Your task to perform on an android device: find which apps use the phone's location Image 0: 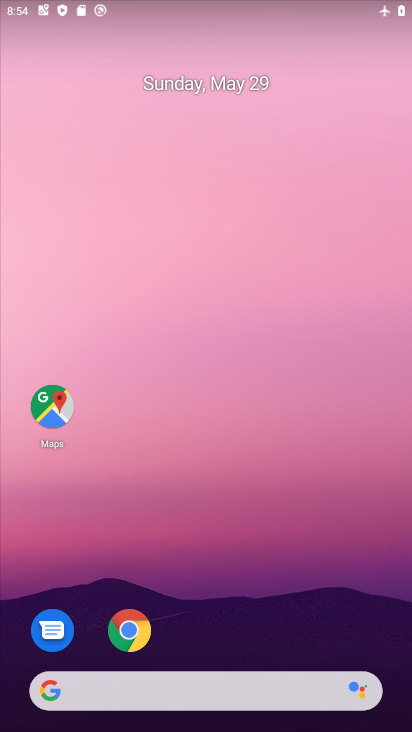
Step 0: drag from (198, 654) to (153, 94)
Your task to perform on an android device: find which apps use the phone's location Image 1: 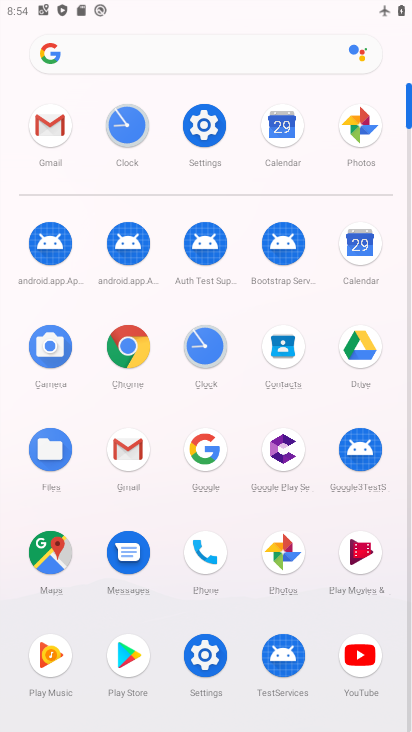
Step 1: click (189, 124)
Your task to perform on an android device: find which apps use the phone's location Image 2: 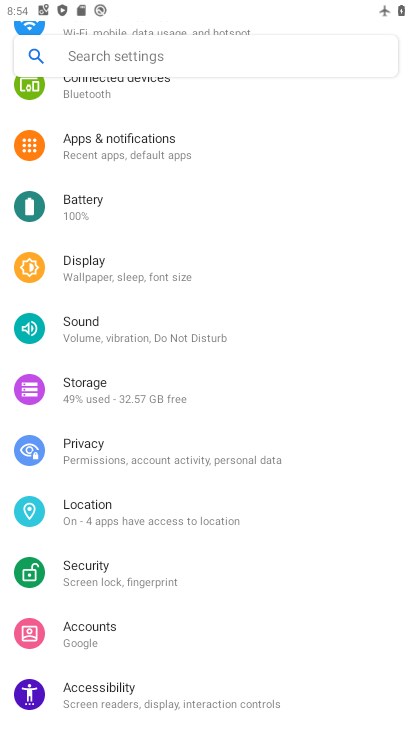
Step 2: click (126, 522)
Your task to perform on an android device: find which apps use the phone's location Image 3: 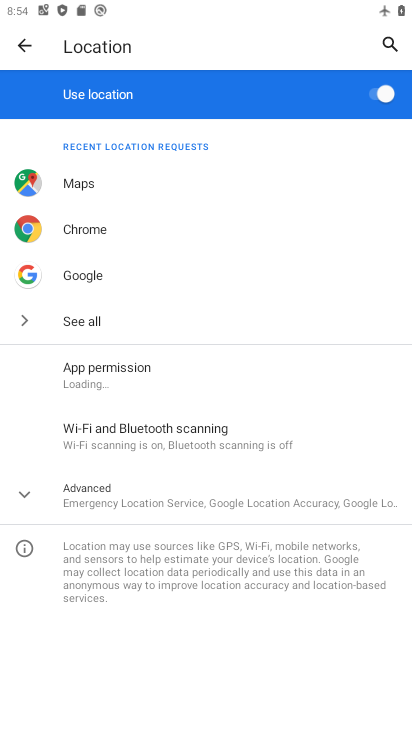
Step 3: click (108, 495)
Your task to perform on an android device: find which apps use the phone's location Image 4: 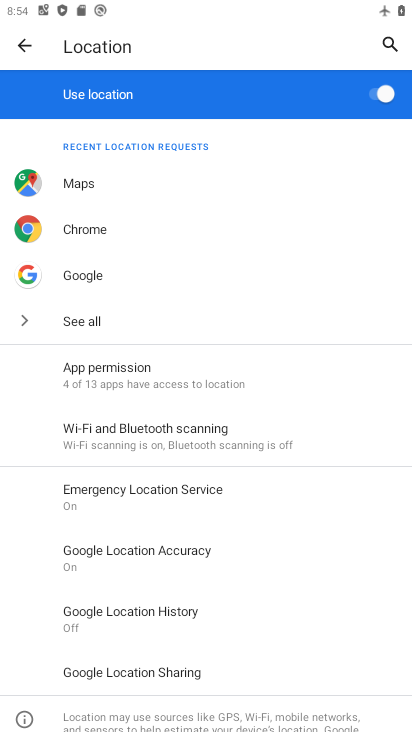
Step 4: click (112, 364)
Your task to perform on an android device: find which apps use the phone's location Image 5: 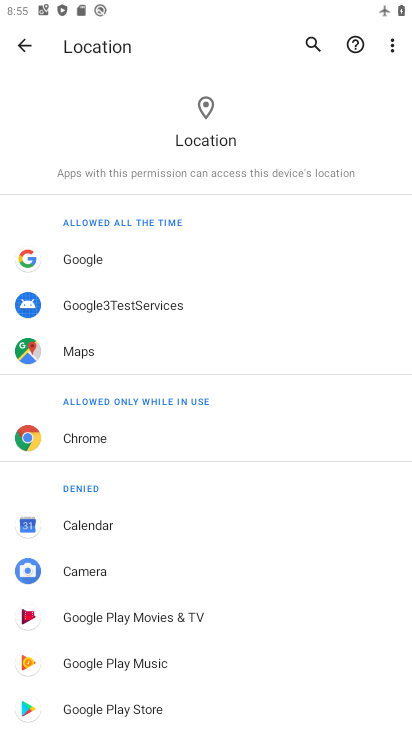
Step 5: task complete